Your task to perform on an android device: change text size in settings app Image 0: 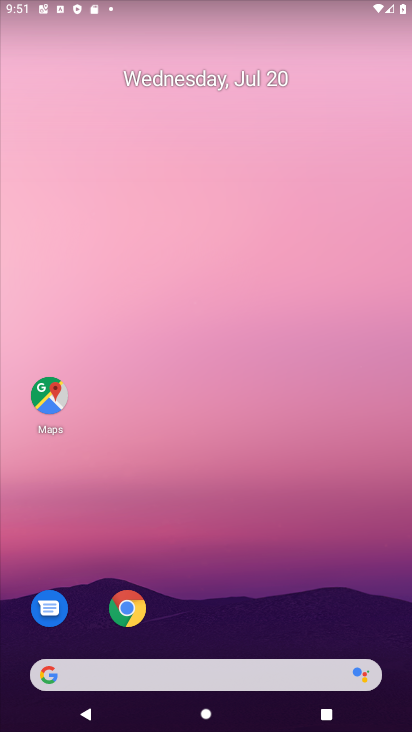
Step 0: drag from (287, 543) to (268, 46)
Your task to perform on an android device: change text size in settings app Image 1: 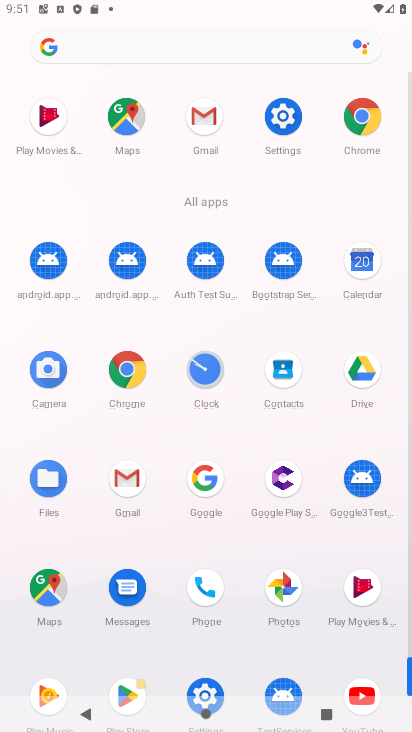
Step 1: click (284, 144)
Your task to perform on an android device: change text size in settings app Image 2: 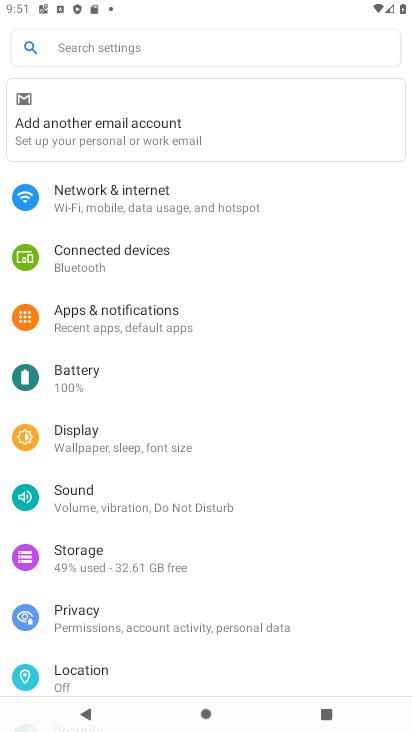
Step 2: click (193, 441)
Your task to perform on an android device: change text size in settings app Image 3: 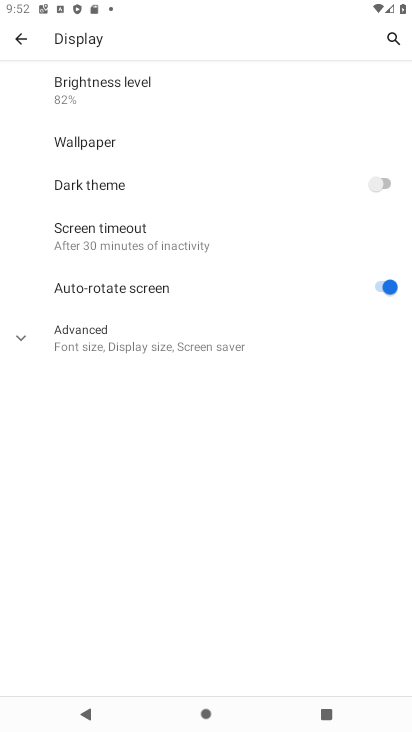
Step 3: click (169, 354)
Your task to perform on an android device: change text size in settings app Image 4: 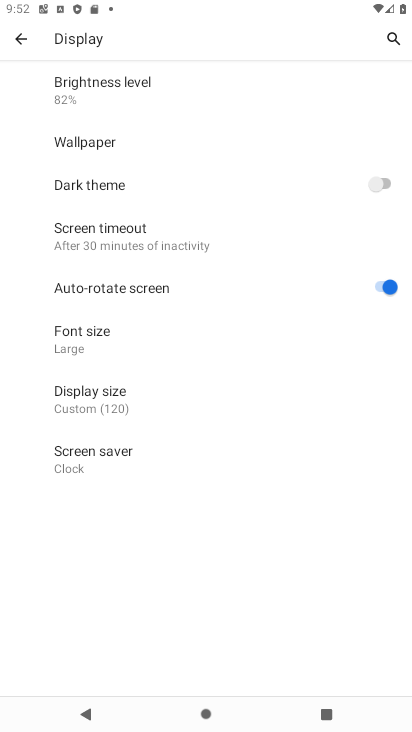
Step 4: click (156, 355)
Your task to perform on an android device: change text size in settings app Image 5: 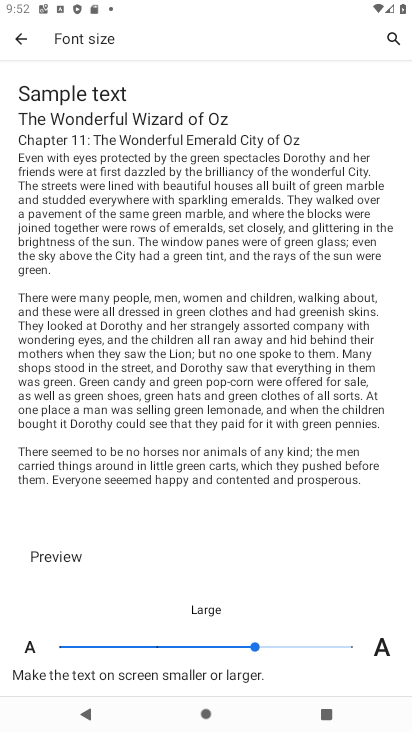
Step 5: click (164, 647)
Your task to perform on an android device: change text size in settings app Image 6: 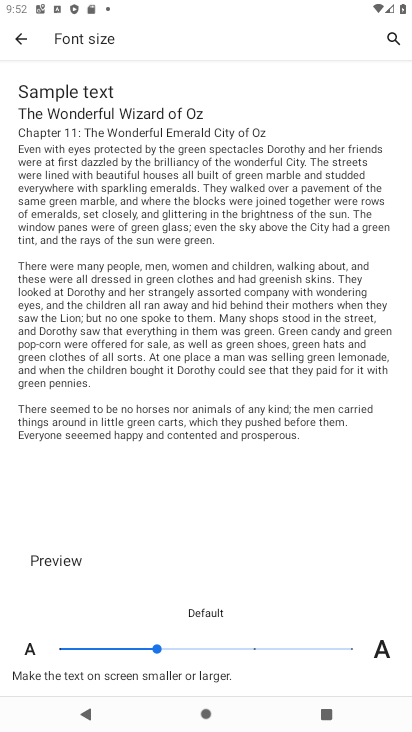
Step 6: task complete